Your task to perform on an android device: Open Google Image 0: 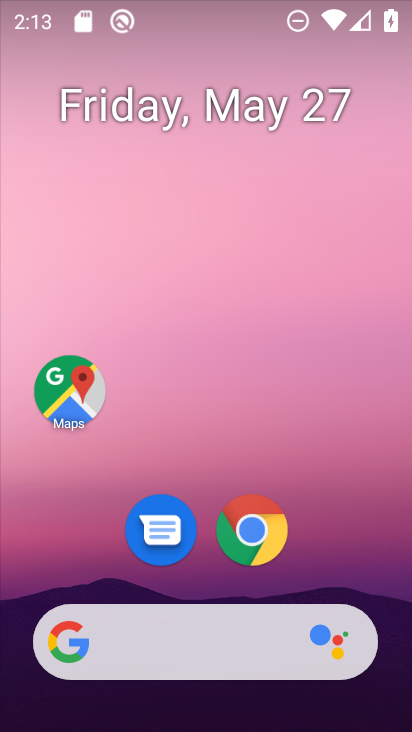
Step 0: drag from (145, 718) to (84, 108)
Your task to perform on an android device: Open Google Image 1: 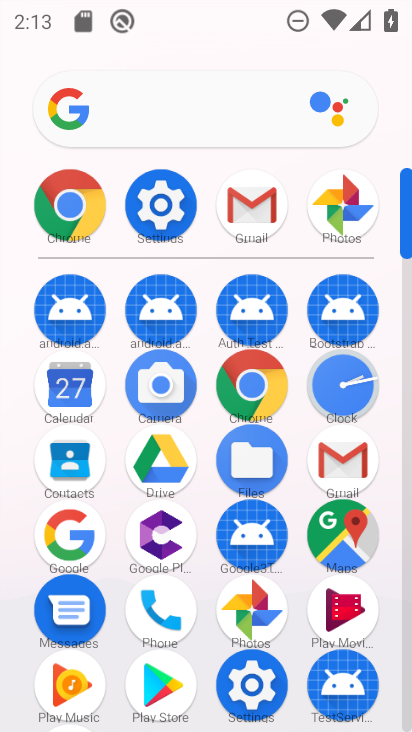
Step 1: click (79, 552)
Your task to perform on an android device: Open Google Image 2: 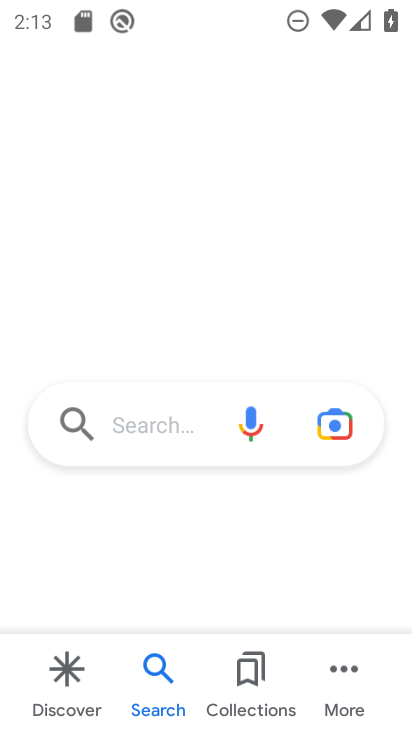
Step 2: task complete